Your task to perform on an android device: change the clock style Image 0: 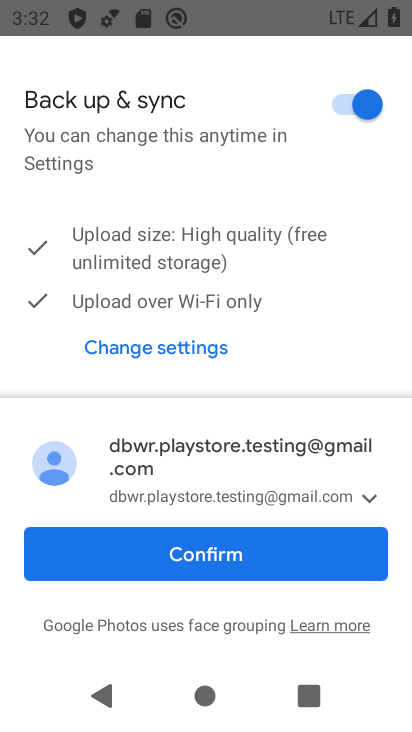
Step 0: press home button
Your task to perform on an android device: change the clock style Image 1: 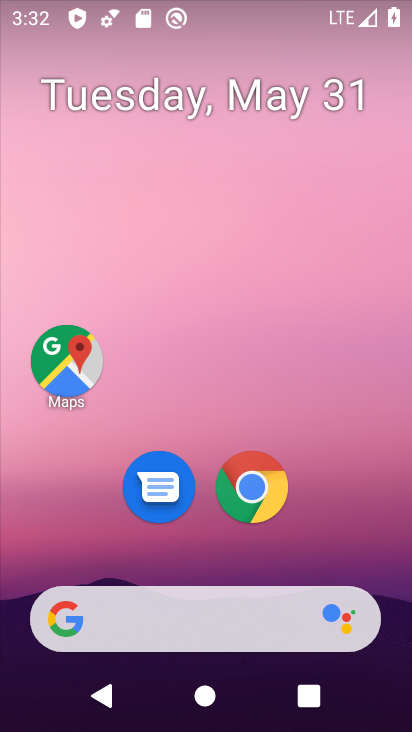
Step 1: drag from (390, 556) to (252, 42)
Your task to perform on an android device: change the clock style Image 2: 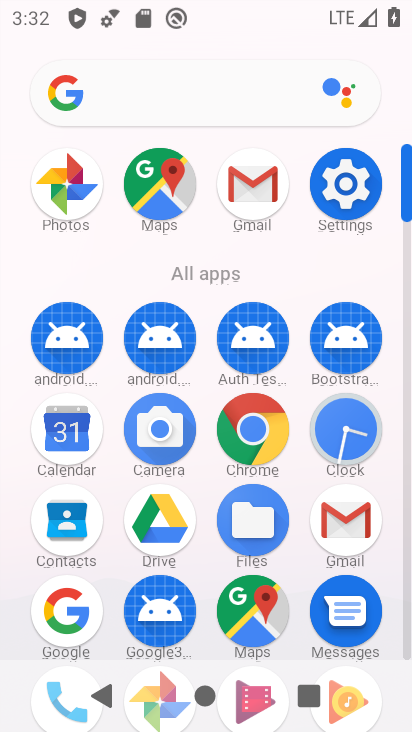
Step 2: click (364, 414)
Your task to perform on an android device: change the clock style Image 3: 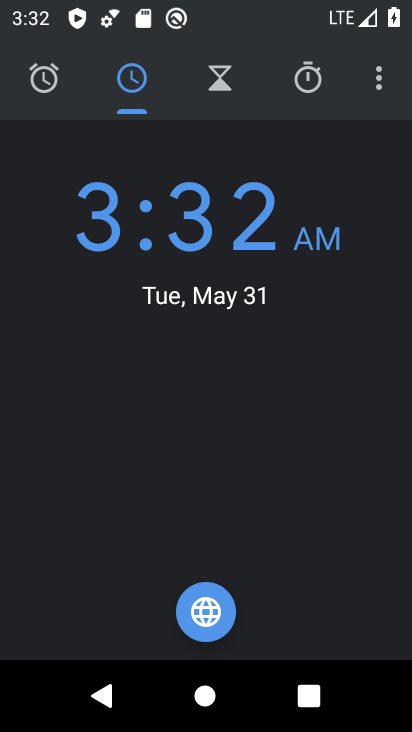
Step 3: click (388, 75)
Your task to perform on an android device: change the clock style Image 4: 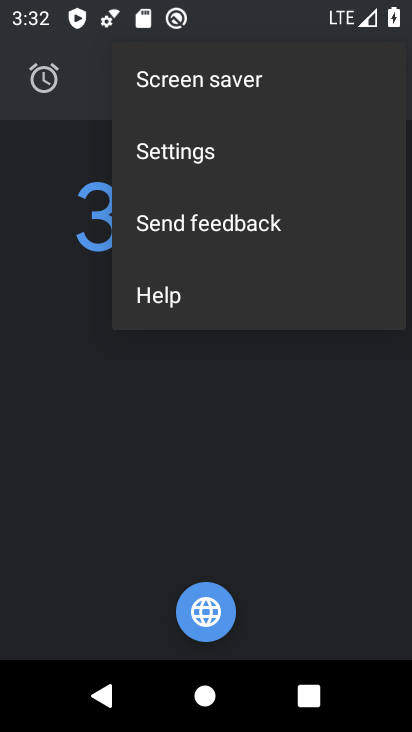
Step 4: click (261, 148)
Your task to perform on an android device: change the clock style Image 5: 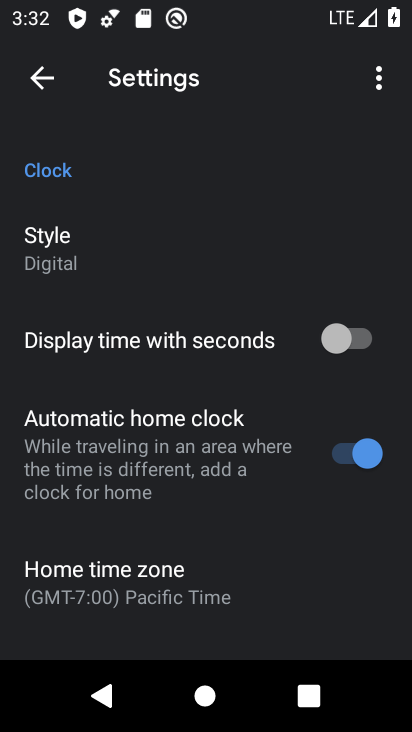
Step 5: click (257, 241)
Your task to perform on an android device: change the clock style Image 6: 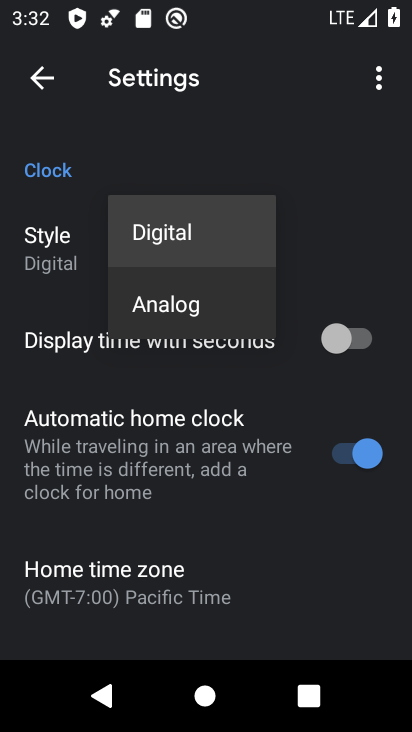
Step 6: click (222, 284)
Your task to perform on an android device: change the clock style Image 7: 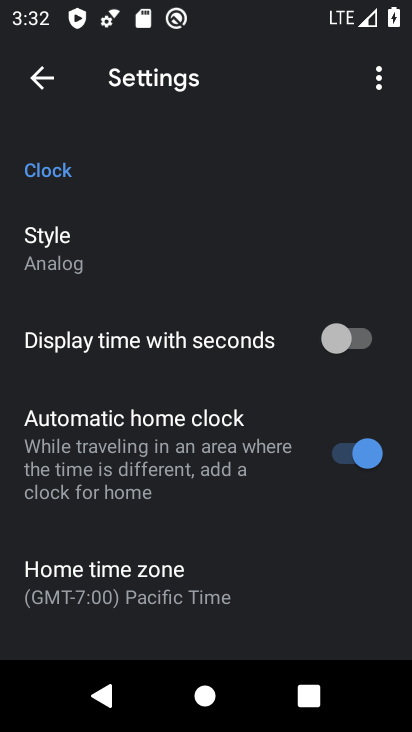
Step 7: task complete